Your task to perform on an android device: show emergency info Image 0: 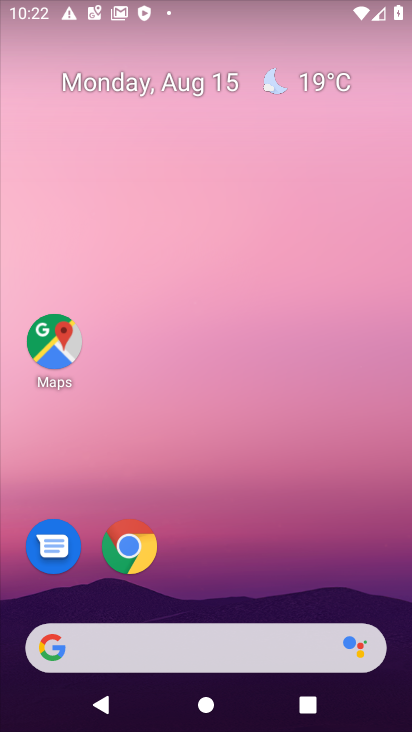
Step 0: drag from (229, 472) to (234, 91)
Your task to perform on an android device: show emergency info Image 1: 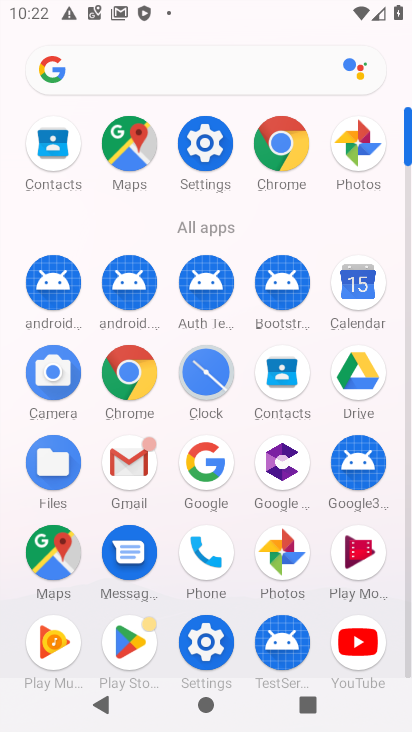
Step 1: click (205, 142)
Your task to perform on an android device: show emergency info Image 2: 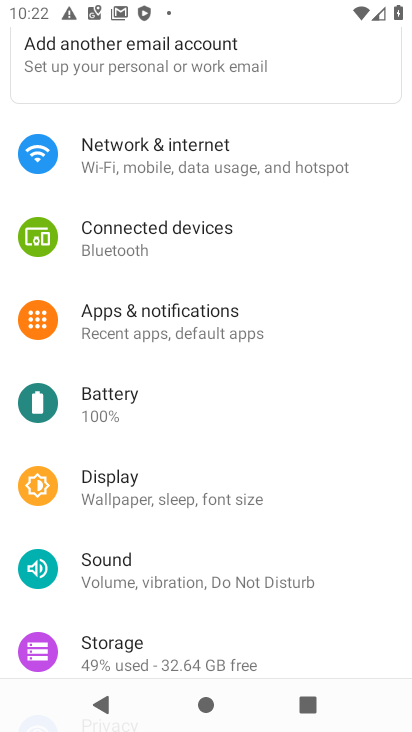
Step 2: drag from (182, 650) to (182, 306)
Your task to perform on an android device: show emergency info Image 3: 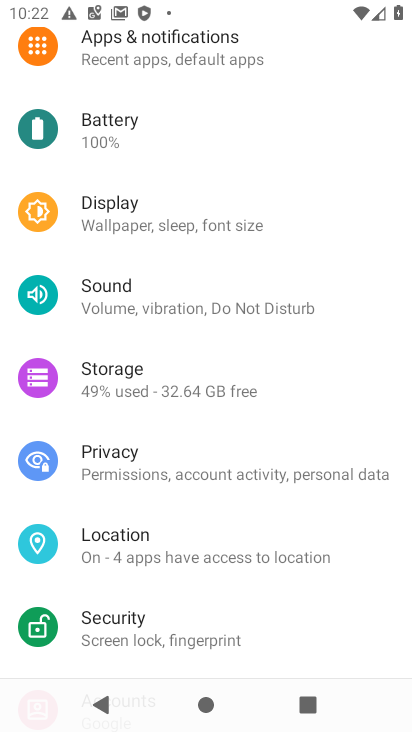
Step 3: drag from (163, 645) to (157, 274)
Your task to perform on an android device: show emergency info Image 4: 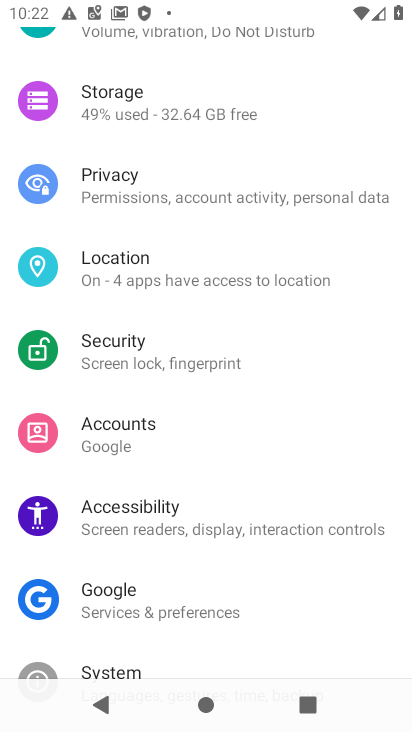
Step 4: drag from (175, 650) to (166, 322)
Your task to perform on an android device: show emergency info Image 5: 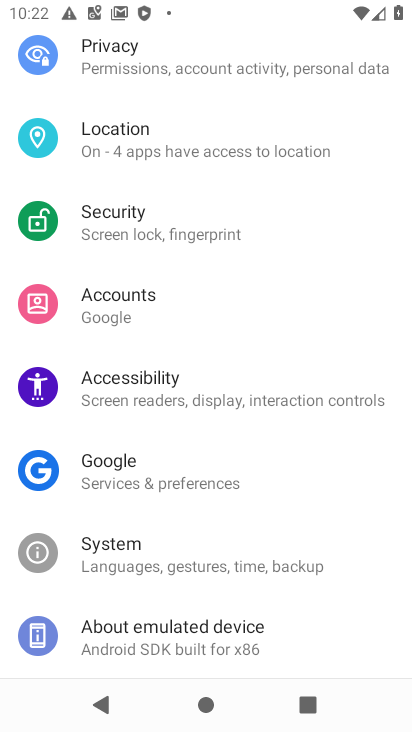
Step 5: drag from (158, 657) to (147, 284)
Your task to perform on an android device: show emergency info Image 6: 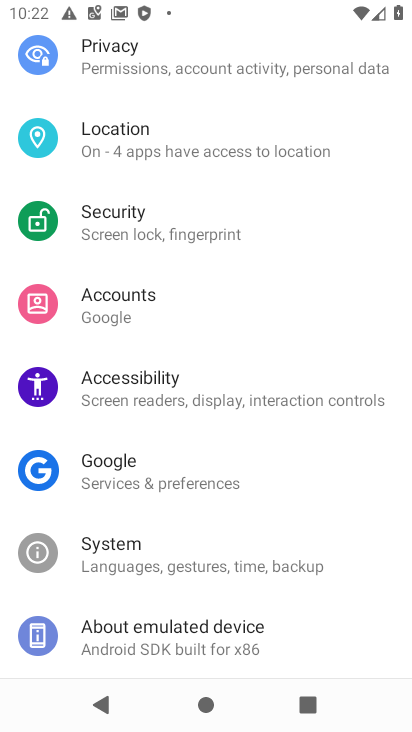
Step 6: drag from (138, 633) to (143, 365)
Your task to perform on an android device: show emergency info Image 7: 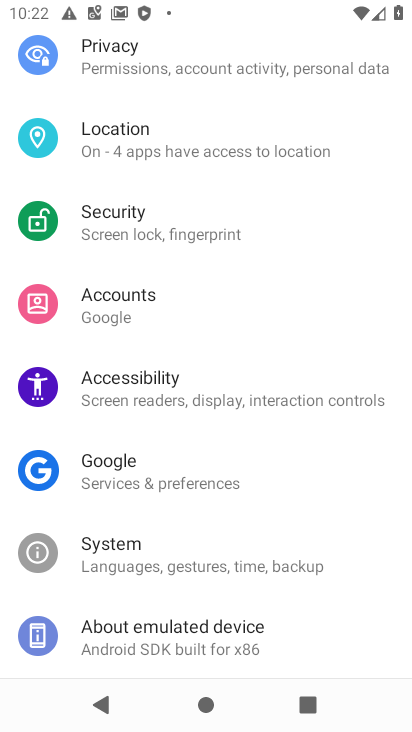
Step 7: click (129, 633)
Your task to perform on an android device: show emergency info Image 8: 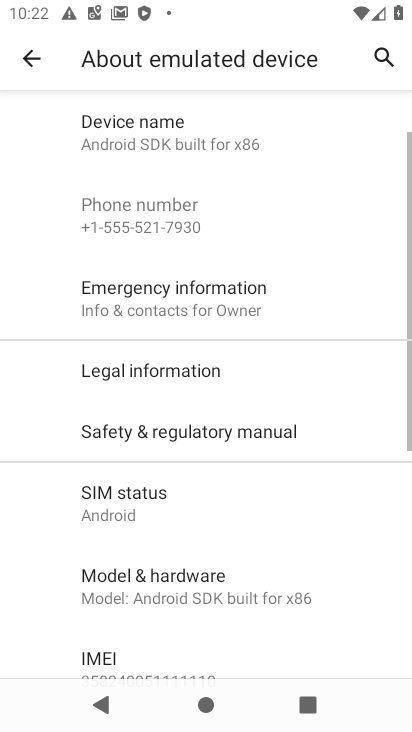
Step 8: click (130, 309)
Your task to perform on an android device: show emergency info Image 9: 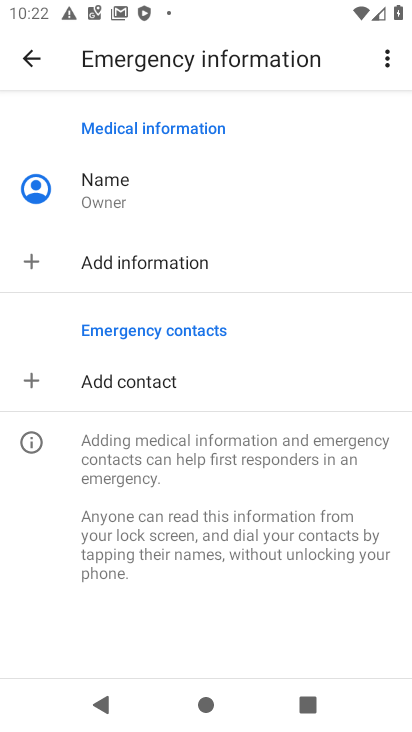
Step 9: task complete